Your task to perform on an android device: Play the last video I watched on Youtube Image 0: 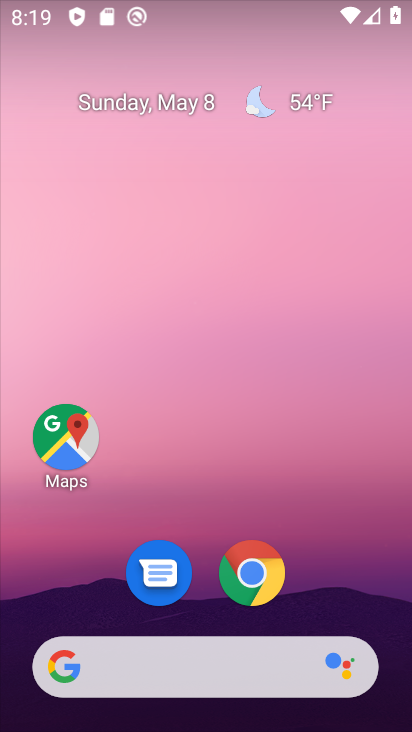
Step 0: drag from (223, 709) to (237, 254)
Your task to perform on an android device: Play the last video I watched on Youtube Image 1: 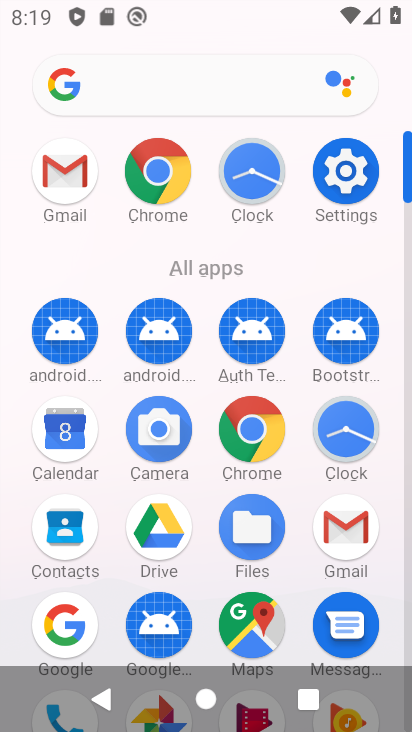
Step 1: drag from (291, 635) to (285, 279)
Your task to perform on an android device: Play the last video I watched on Youtube Image 2: 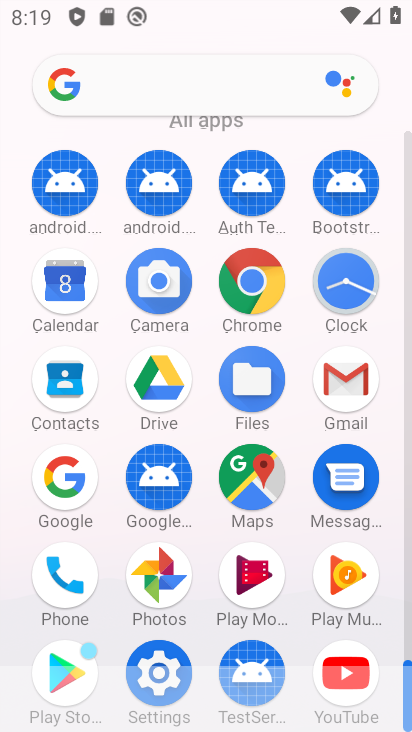
Step 2: click (345, 657)
Your task to perform on an android device: Play the last video I watched on Youtube Image 3: 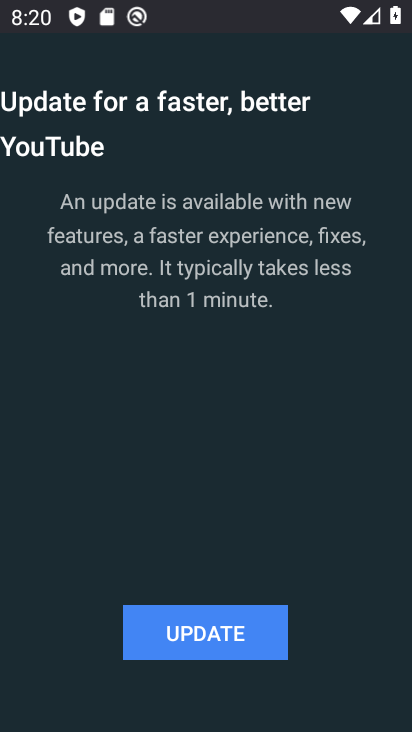
Step 3: task complete